Your task to perform on an android device: Open Google Chrome and open the bookmarks view Image 0: 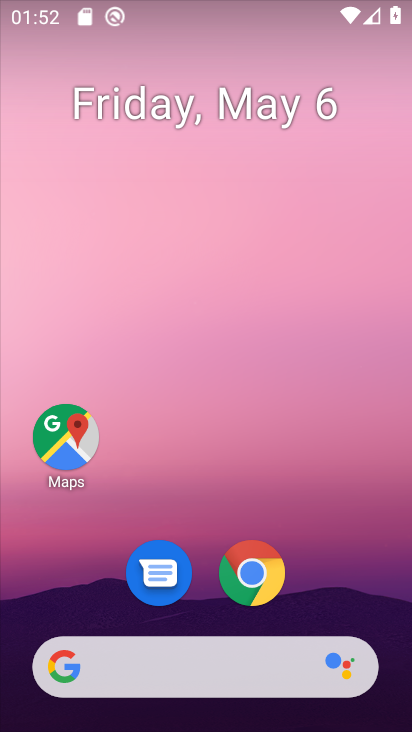
Step 0: drag from (345, 556) to (330, 196)
Your task to perform on an android device: Open Google Chrome and open the bookmarks view Image 1: 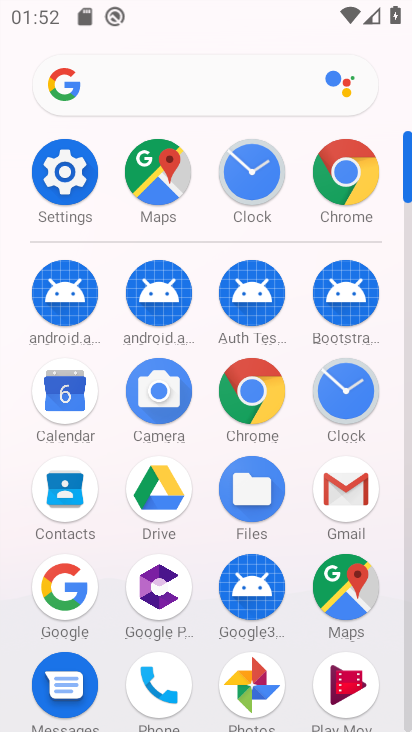
Step 1: click (250, 379)
Your task to perform on an android device: Open Google Chrome and open the bookmarks view Image 2: 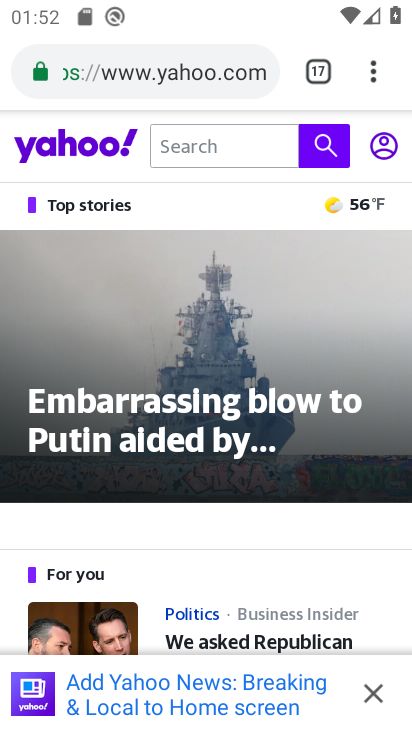
Step 2: click (364, 61)
Your task to perform on an android device: Open Google Chrome and open the bookmarks view Image 3: 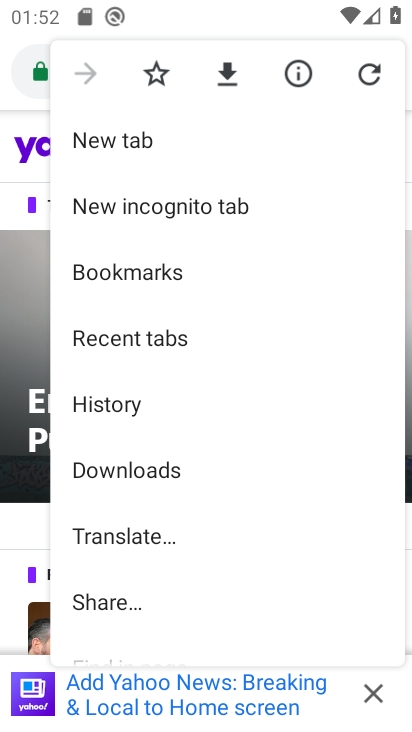
Step 3: click (162, 281)
Your task to perform on an android device: Open Google Chrome and open the bookmarks view Image 4: 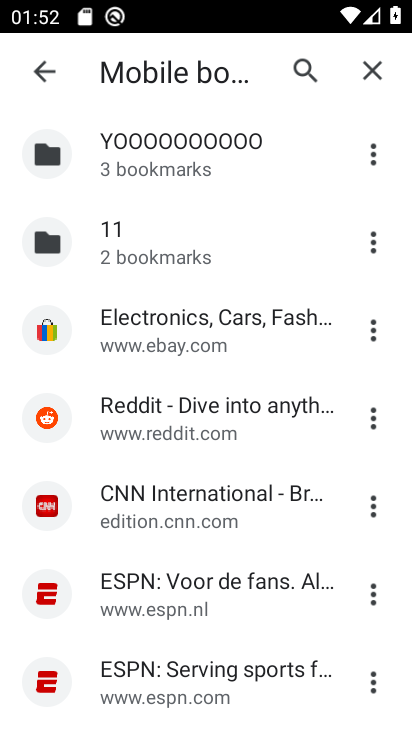
Step 4: task complete